Your task to perform on an android device: Open calendar and show me the fourth week of next month Image 0: 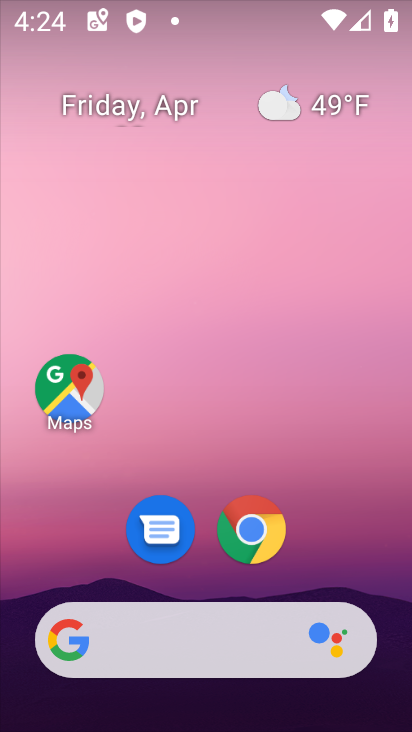
Step 0: drag from (226, 715) to (217, 158)
Your task to perform on an android device: Open calendar and show me the fourth week of next month Image 1: 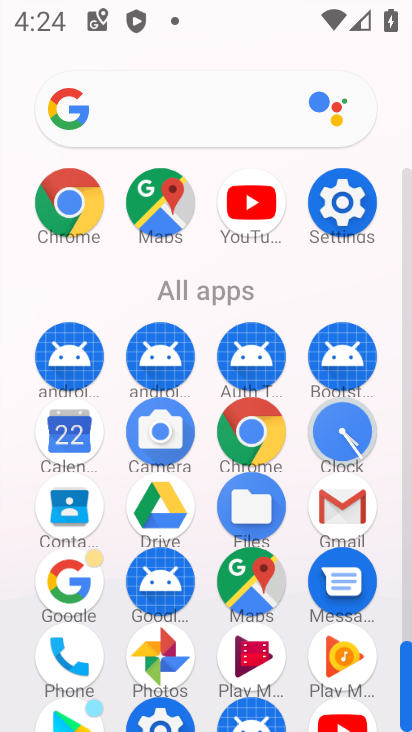
Step 1: click (70, 433)
Your task to perform on an android device: Open calendar and show me the fourth week of next month Image 2: 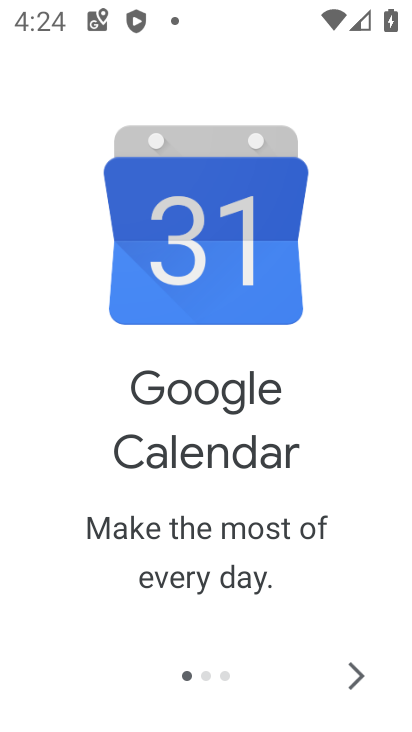
Step 2: click (360, 673)
Your task to perform on an android device: Open calendar and show me the fourth week of next month Image 3: 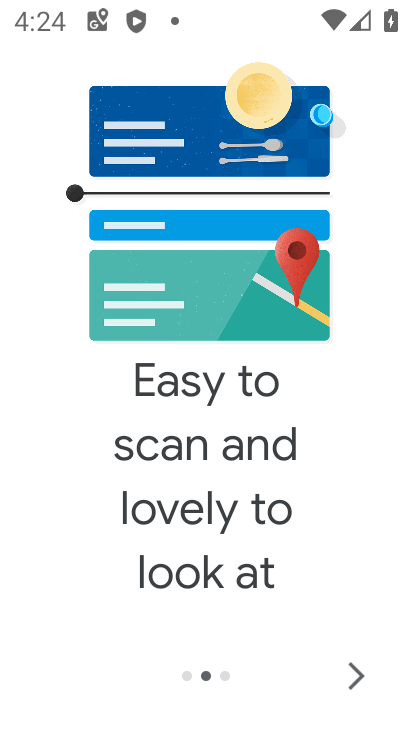
Step 3: click (359, 670)
Your task to perform on an android device: Open calendar and show me the fourth week of next month Image 4: 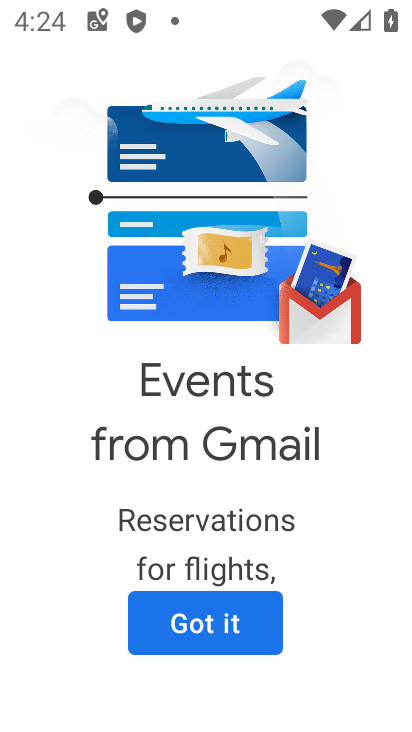
Step 4: click (237, 625)
Your task to perform on an android device: Open calendar and show me the fourth week of next month Image 5: 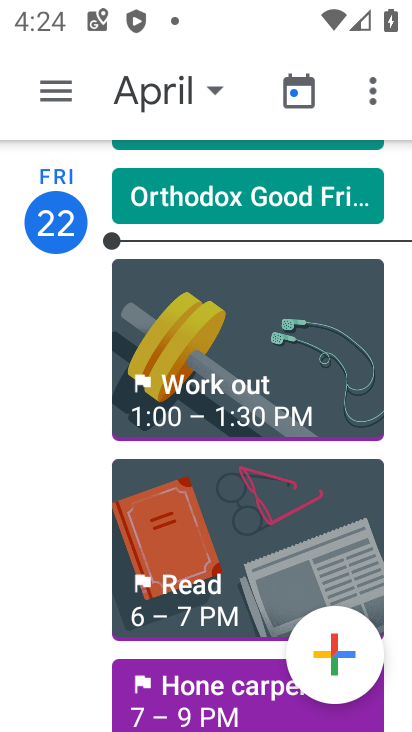
Step 5: click (151, 92)
Your task to perform on an android device: Open calendar and show me the fourth week of next month Image 6: 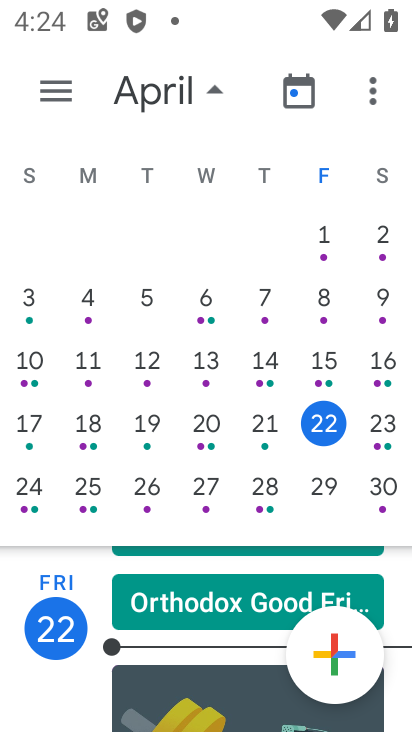
Step 6: drag from (372, 411) to (5, 422)
Your task to perform on an android device: Open calendar and show me the fourth week of next month Image 7: 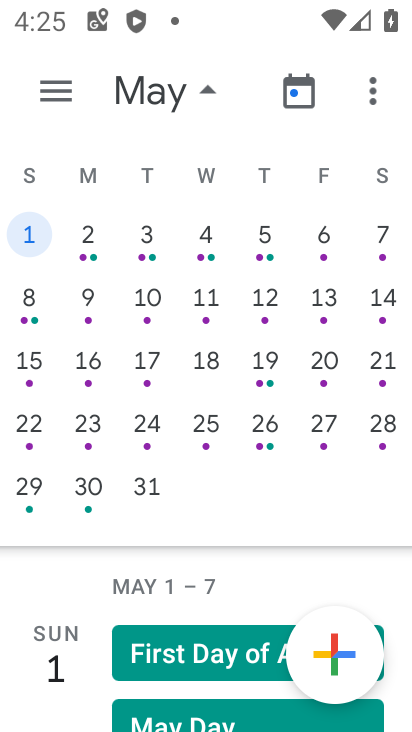
Step 7: click (83, 416)
Your task to perform on an android device: Open calendar and show me the fourth week of next month Image 8: 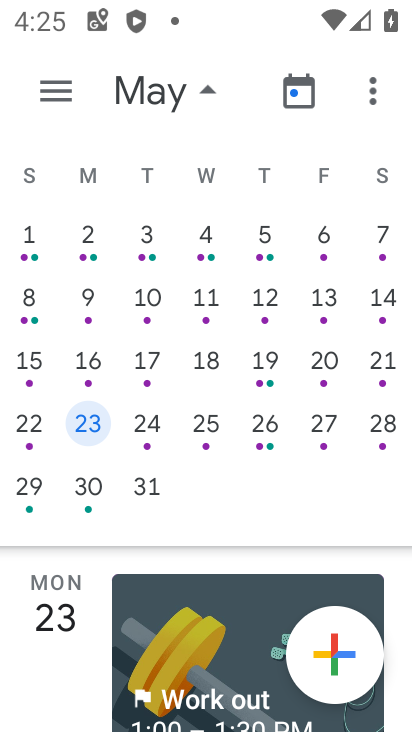
Step 8: task complete